Your task to perform on an android device: Check the news Image 0: 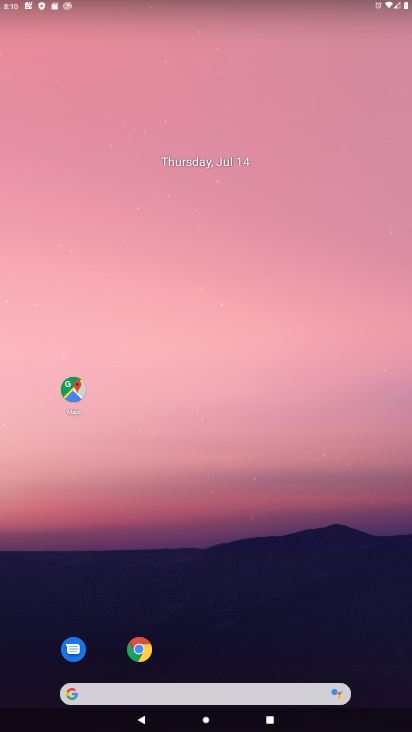
Step 0: drag from (10, 460) to (407, 465)
Your task to perform on an android device: Check the news Image 1: 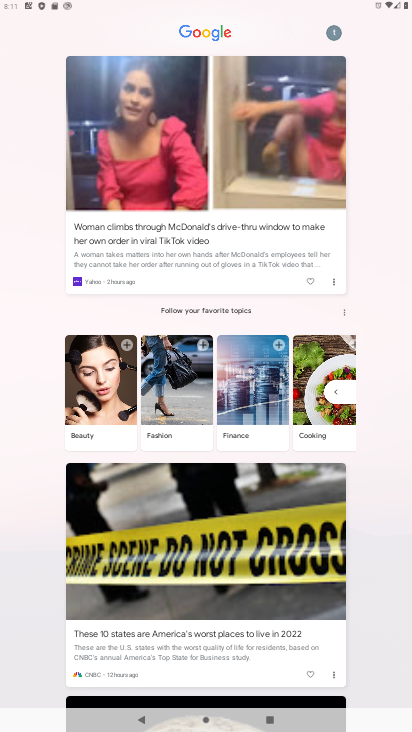
Step 1: task complete